Your task to perform on an android device: turn on the 24-hour format for clock Image 0: 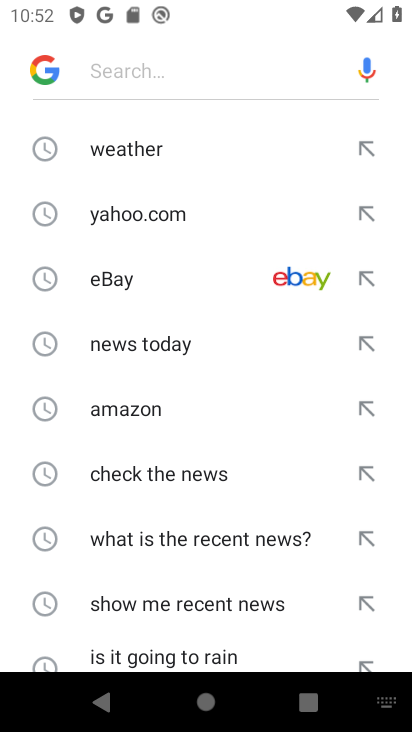
Step 0: press back button
Your task to perform on an android device: turn on the 24-hour format for clock Image 1: 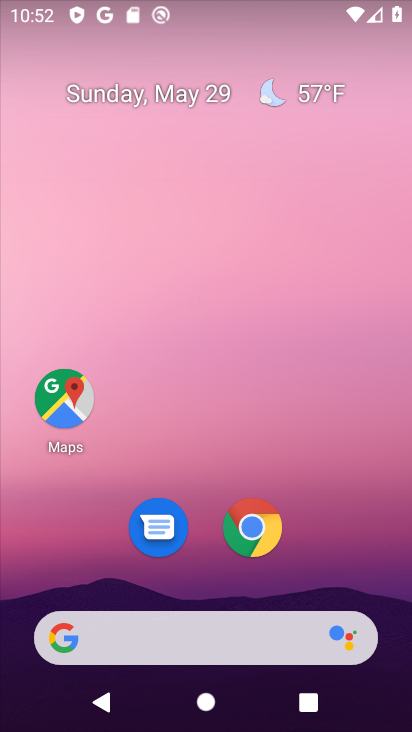
Step 1: drag from (313, 553) to (238, 219)
Your task to perform on an android device: turn on the 24-hour format for clock Image 2: 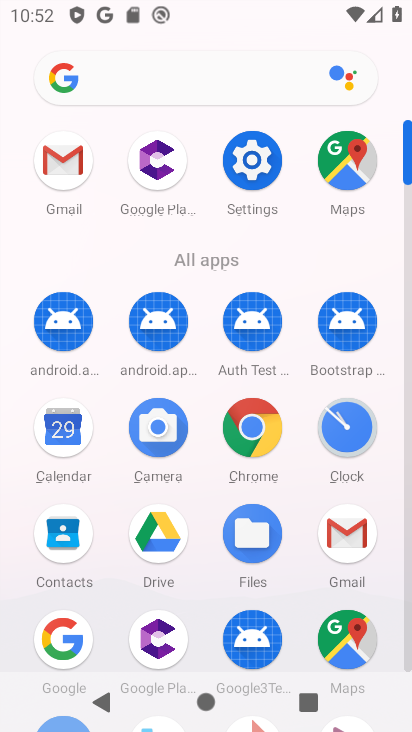
Step 2: click (351, 423)
Your task to perform on an android device: turn on the 24-hour format for clock Image 3: 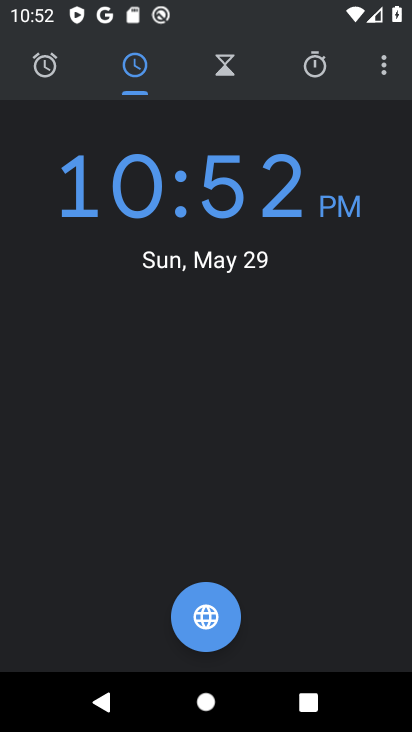
Step 3: click (383, 71)
Your task to perform on an android device: turn on the 24-hour format for clock Image 4: 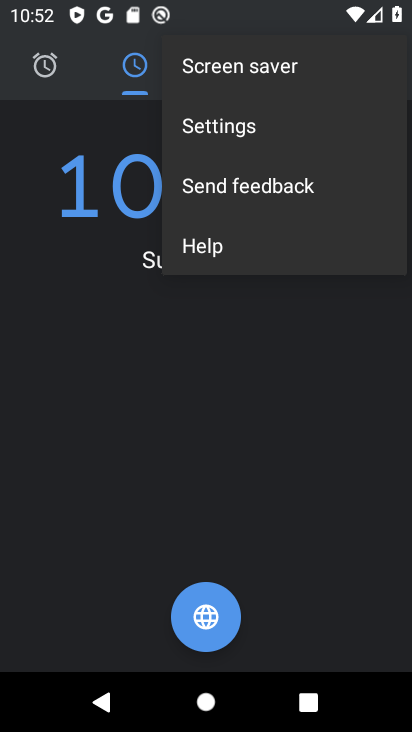
Step 4: click (260, 122)
Your task to perform on an android device: turn on the 24-hour format for clock Image 5: 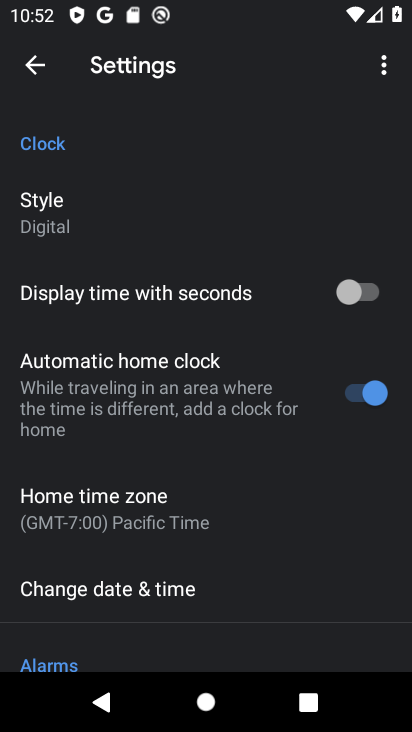
Step 5: click (129, 590)
Your task to perform on an android device: turn on the 24-hour format for clock Image 6: 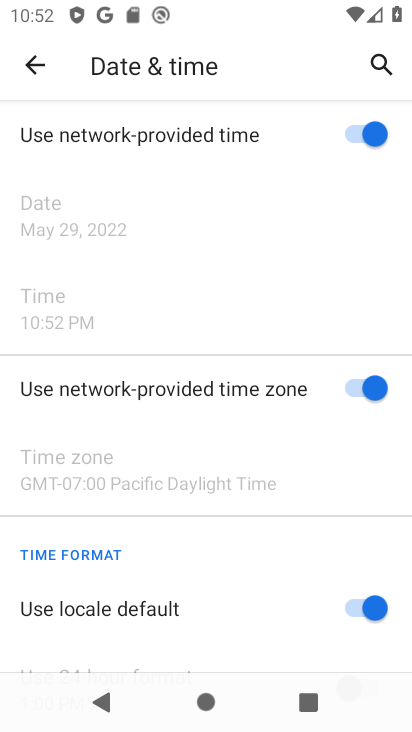
Step 6: drag from (205, 518) to (249, 354)
Your task to perform on an android device: turn on the 24-hour format for clock Image 7: 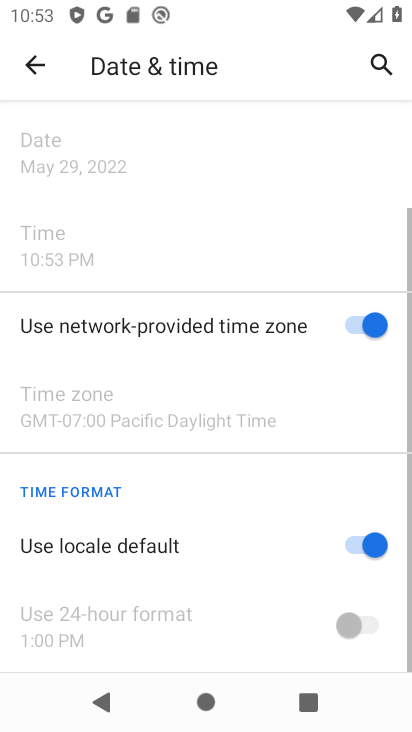
Step 7: click (347, 548)
Your task to perform on an android device: turn on the 24-hour format for clock Image 8: 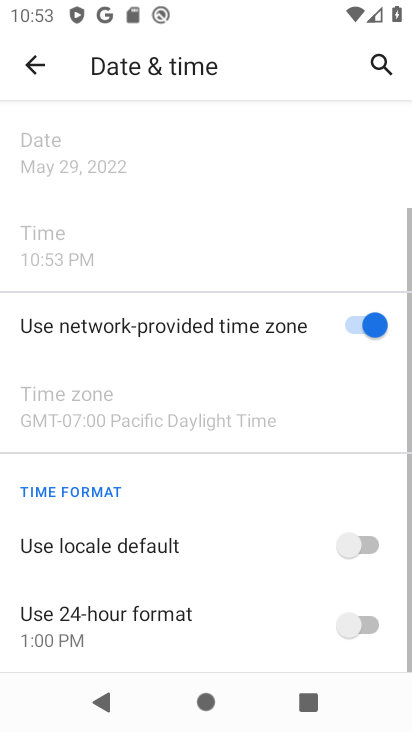
Step 8: click (356, 629)
Your task to perform on an android device: turn on the 24-hour format for clock Image 9: 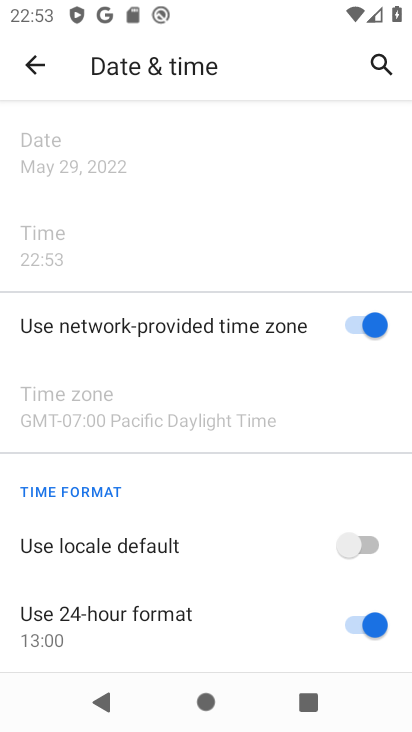
Step 9: task complete